Your task to perform on an android device: Open privacy settings Image 0: 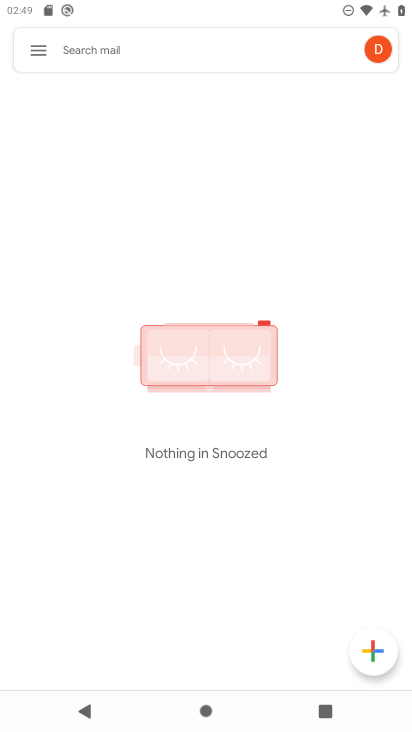
Step 0: press home button
Your task to perform on an android device: Open privacy settings Image 1: 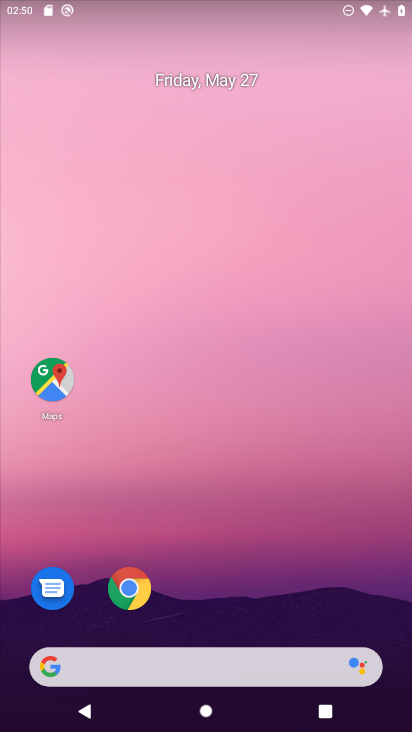
Step 1: drag from (374, 602) to (285, 72)
Your task to perform on an android device: Open privacy settings Image 2: 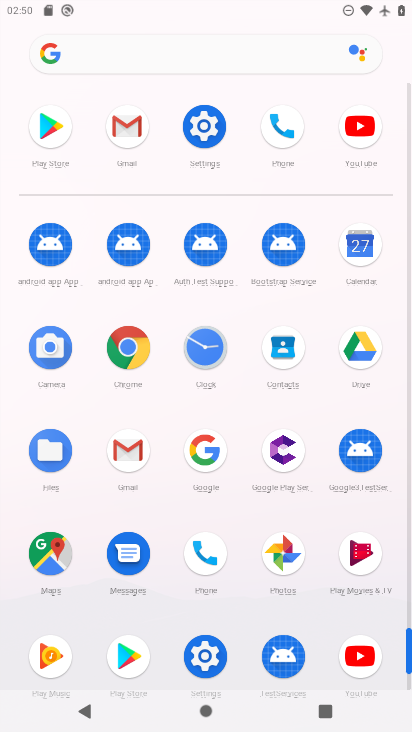
Step 2: click (203, 651)
Your task to perform on an android device: Open privacy settings Image 3: 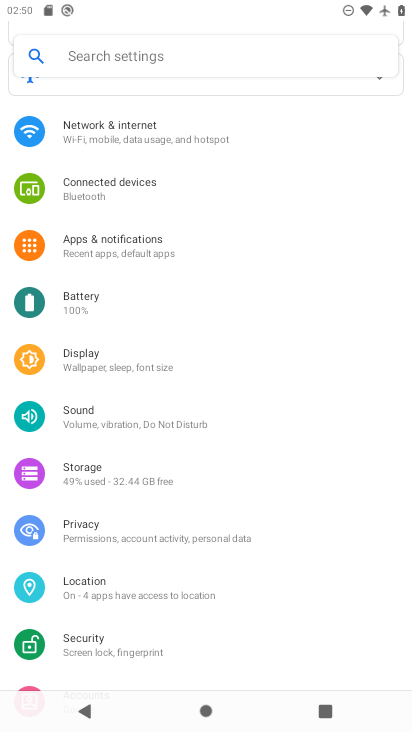
Step 3: click (104, 511)
Your task to perform on an android device: Open privacy settings Image 4: 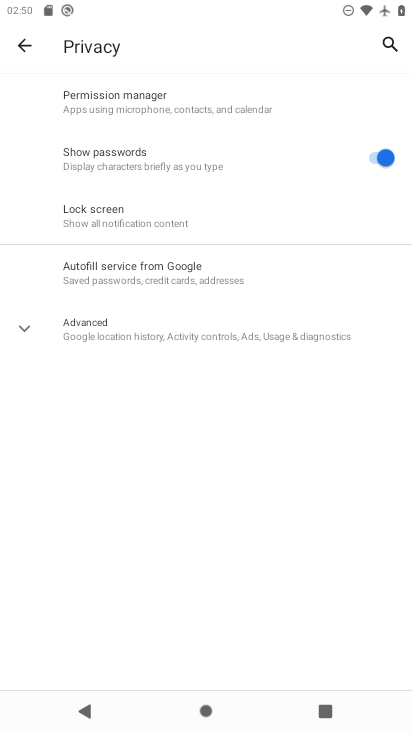
Step 4: click (26, 330)
Your task to perform on an android device: Open privacy settings Image 5: 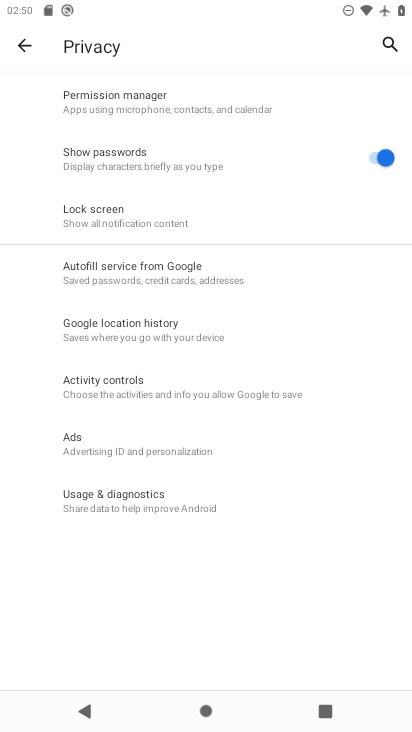
Step 5: task complete